Your task to perform on an android device: open app "Facebook" (install if not already installed) Image 0: 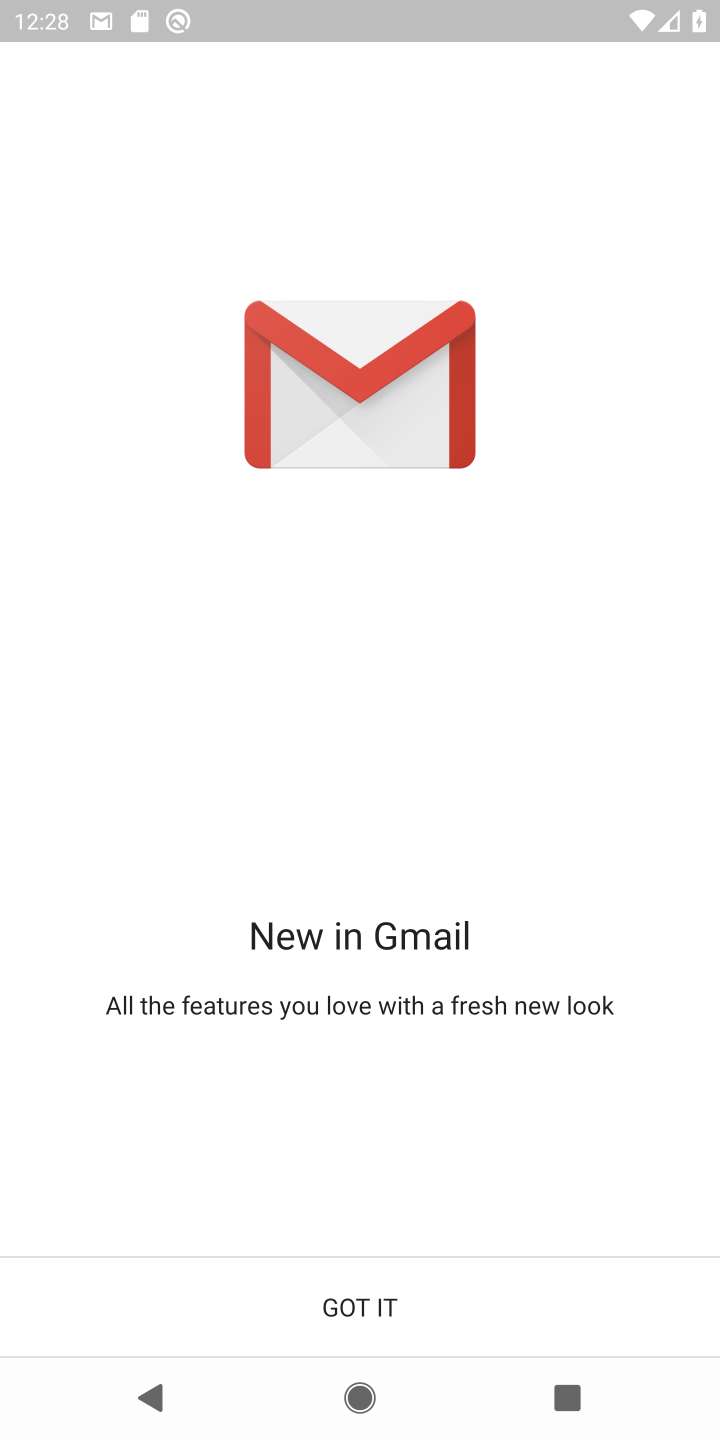
Step 0: press home button
Your task to perform on an android device: open app "Facebook" (install if not already installed) Image 1: 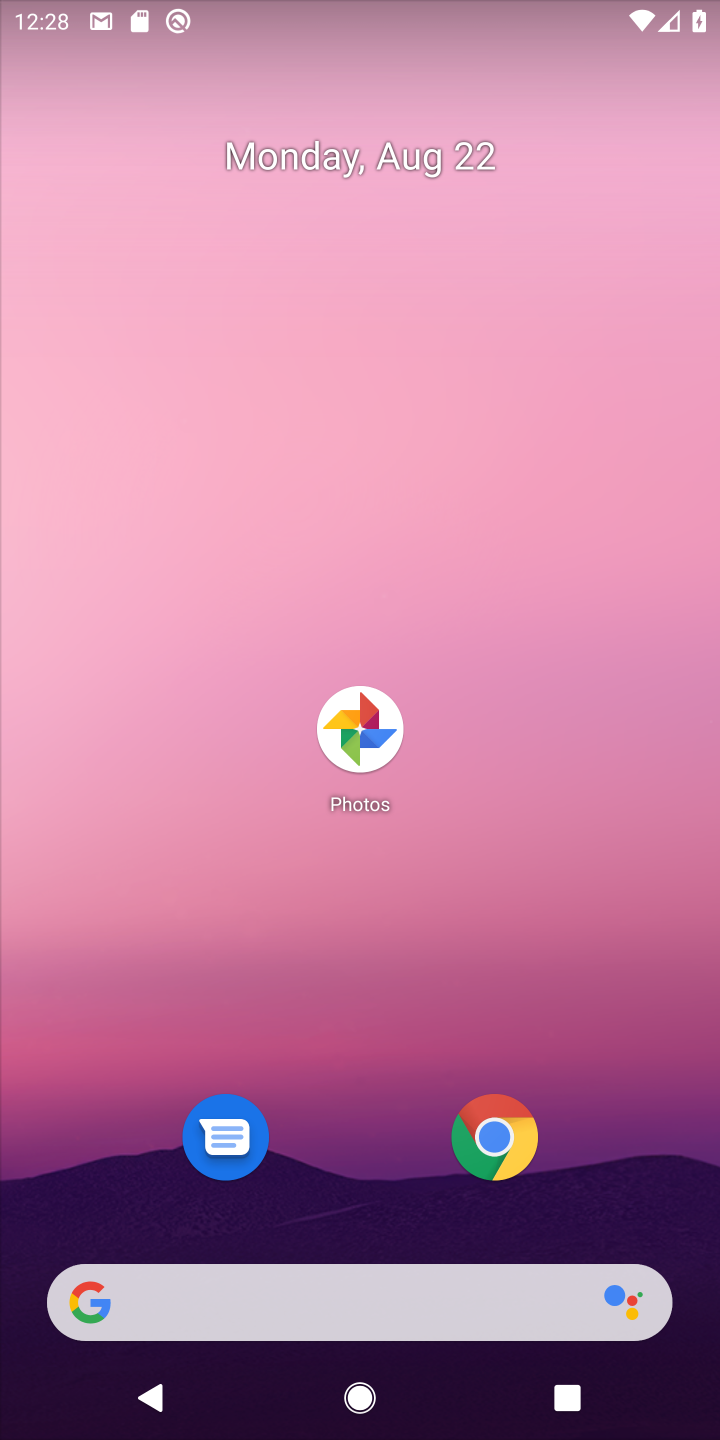
Step 1: drag from (621, 1190) to (563, 187)
Your task to perform on an android device: open app "Facebook" (install if not already installed) Image 2: 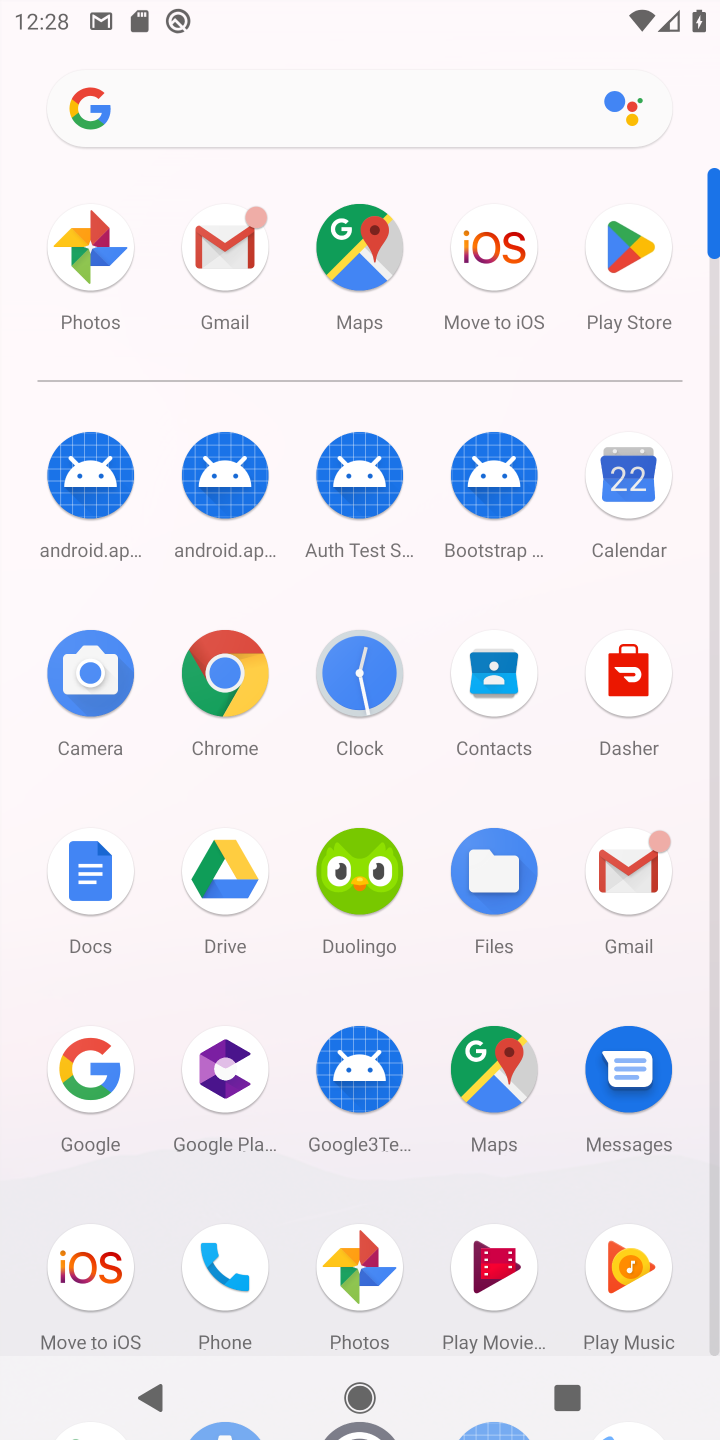
Step 2: drag from (282, 1190) to (320, 382)
Your task to perform on an android device: open app "Facebook" (install if not already installed) Image 3: 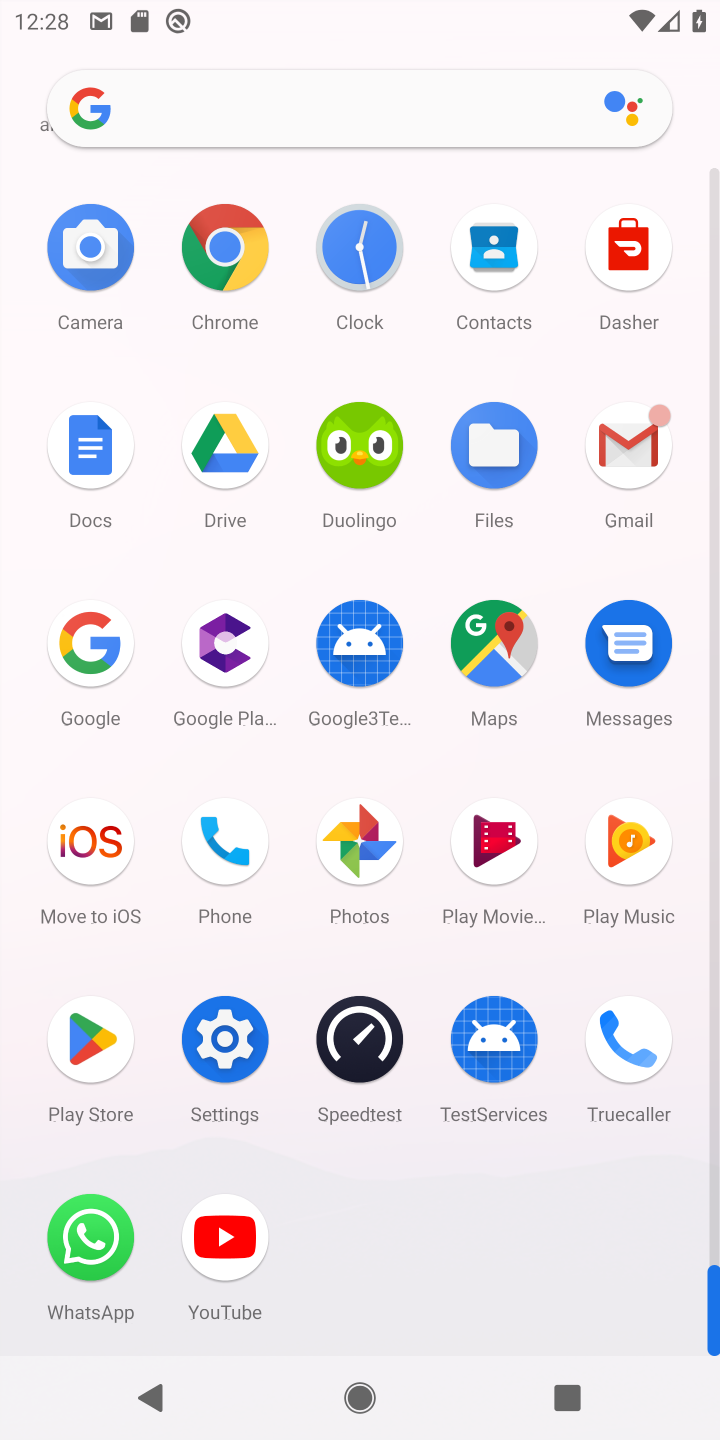
Step 3: click (95, 1041)
Your task to perform on an android device: open app "Facebook" (install if not already installed) Image 4: 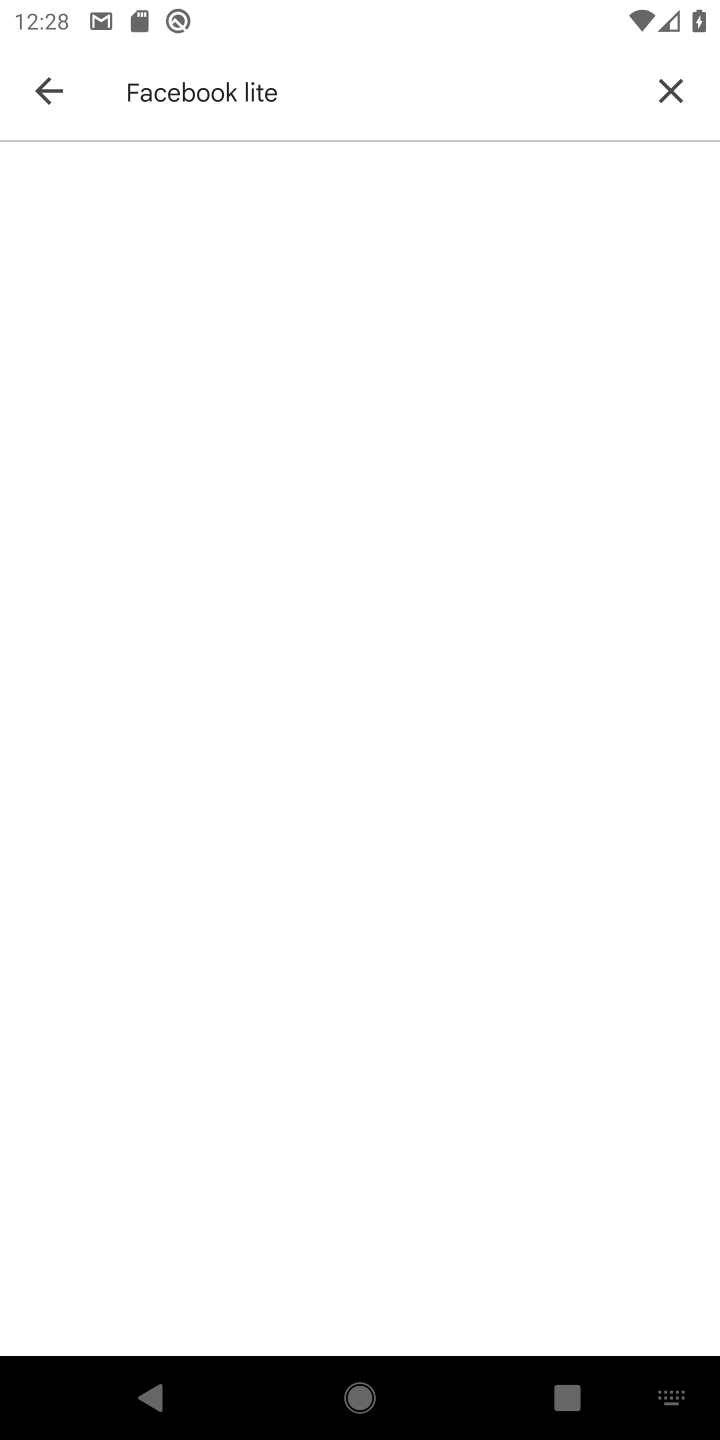
Step 4: click (565, 95)
Your task to perform on an android device: open app "Facebook" (install if not already installed) Image 5: 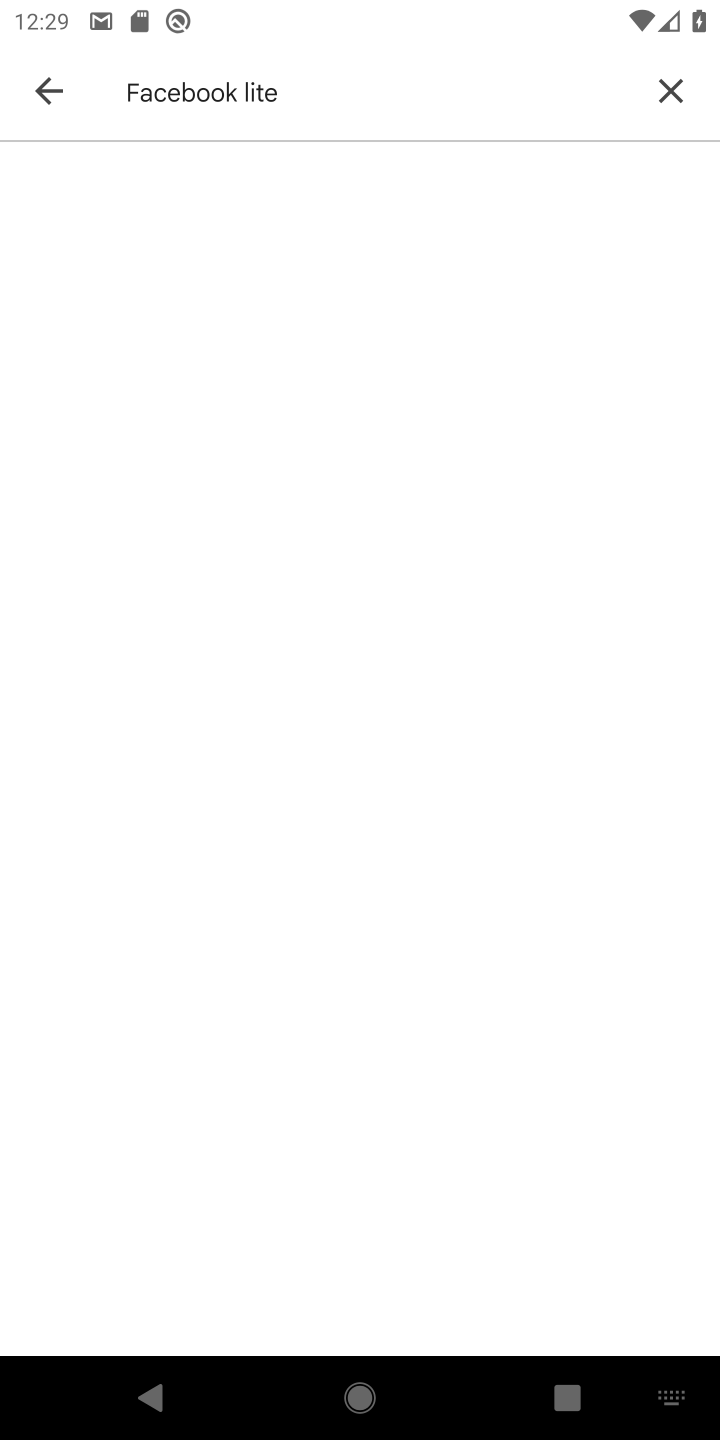
Step 5: click (679, 78)
Your task to perform on an android device: open app "Facebook" (install if not already installed) Image 6: 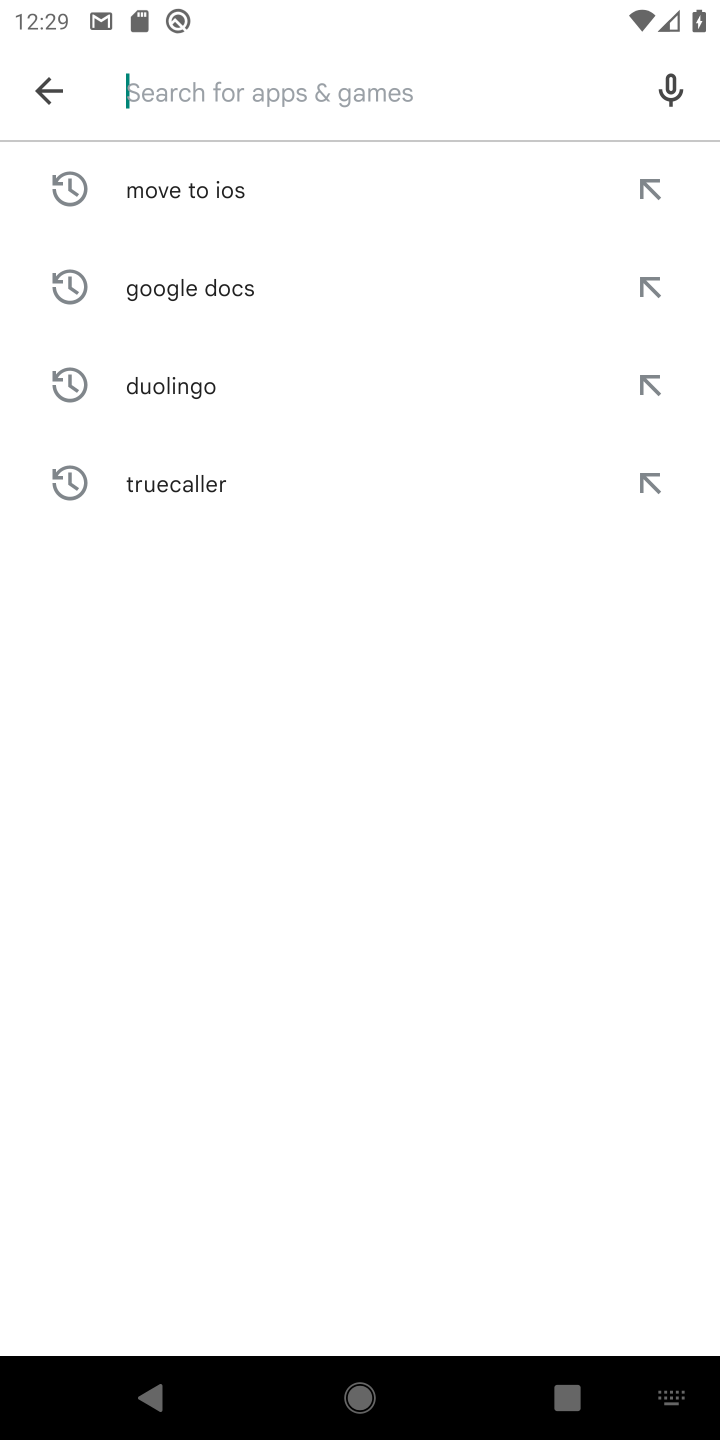
Step 6: type "Facebook"
Your task to perform on an android device: open app "Facebook" (install if not already installed) Image 7: 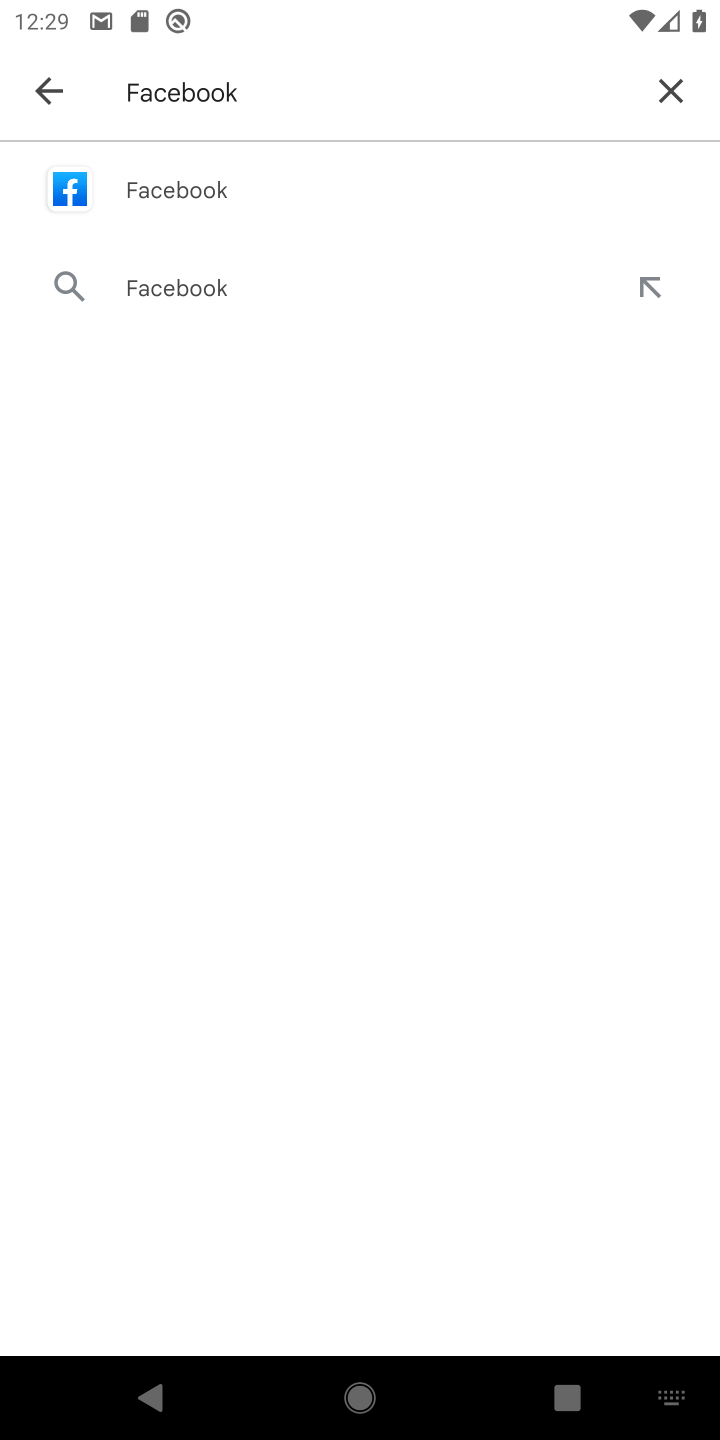
Step 7: click (173, 184)
Your task to perform on an android device: open app "Facebook" (install if not already installed) Image 8: 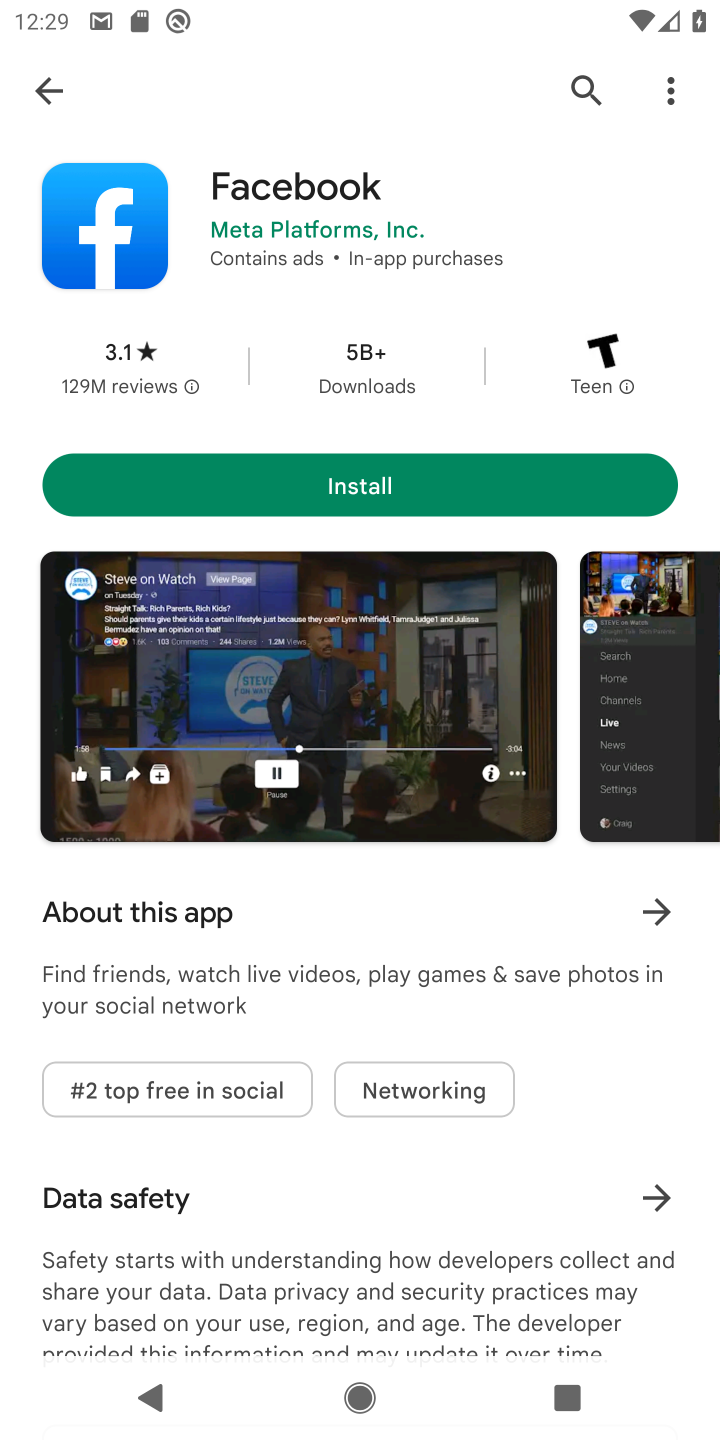
Step 8: click (356, 492)
Your task to perform on an android device: open app "Facebook" (install if not already installed) Image 9: 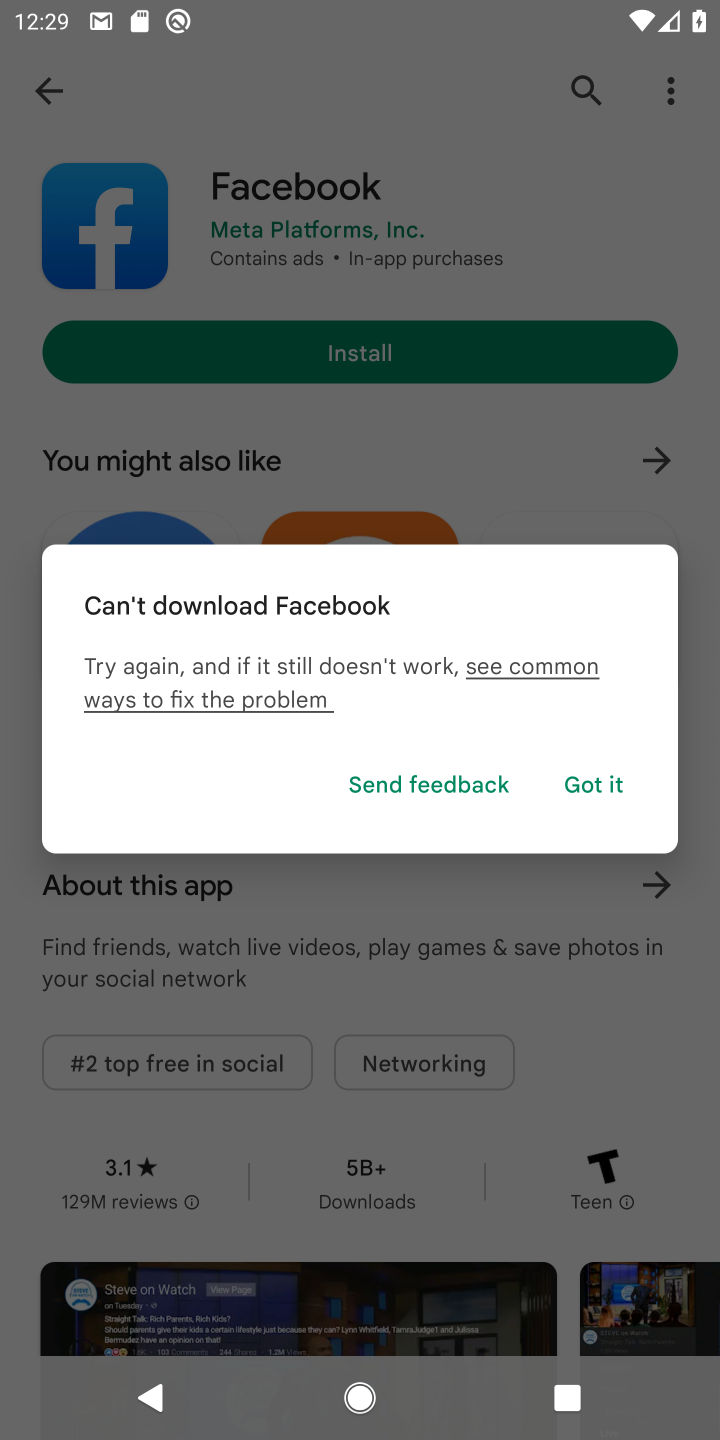
Step 9: click (590, 785)
Your task to perform on an android device: open app "Facebook" (install if not already installed) Image 10: 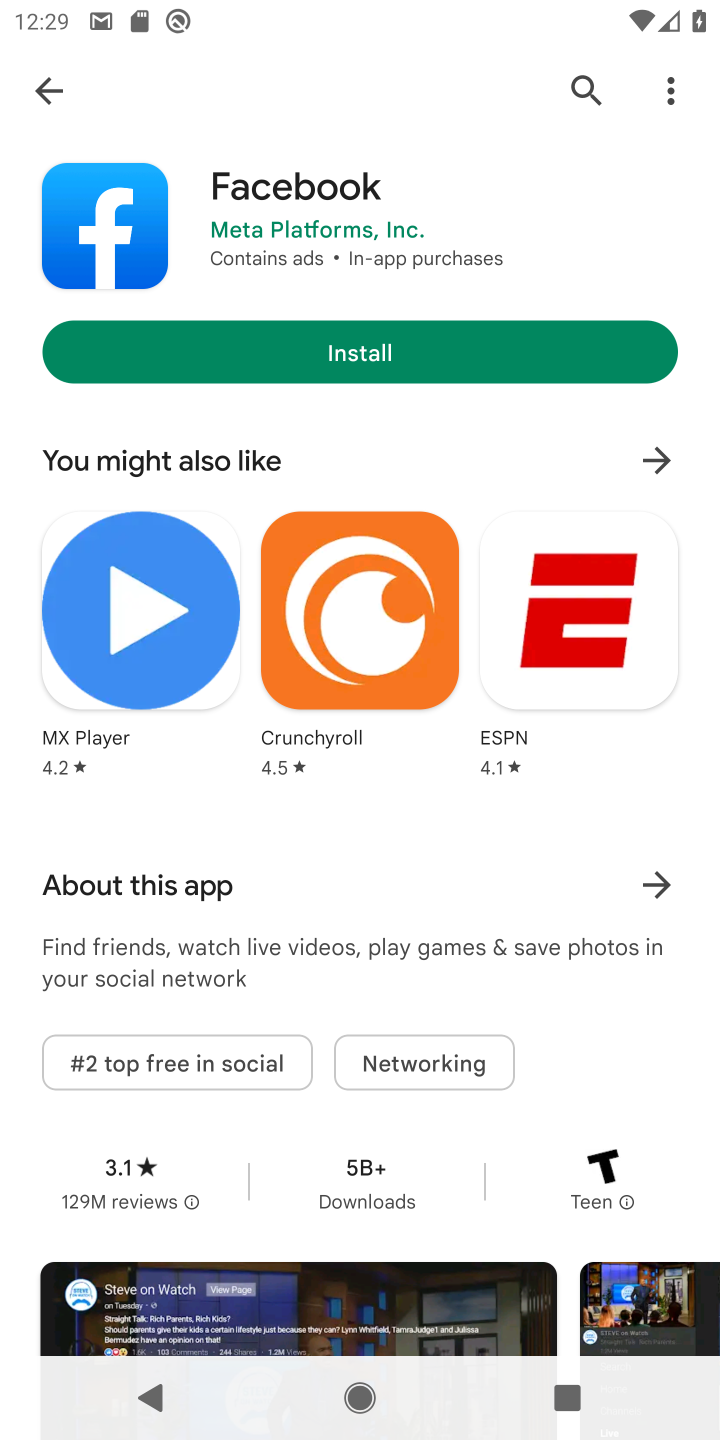
Step 10: task complete